Your task to perform on an android device: open a bookmark in the chrome app Image 0: 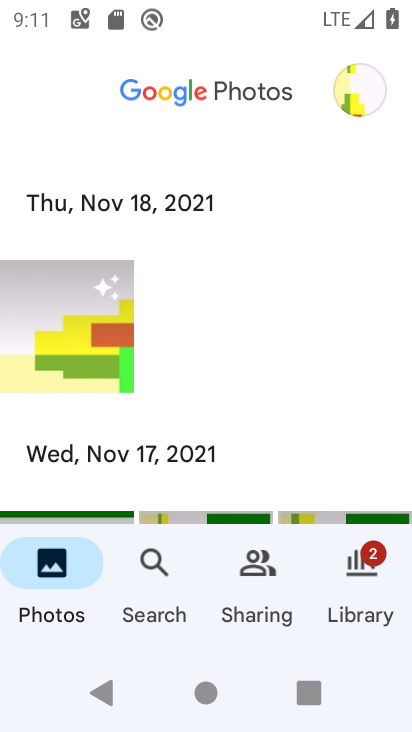
Step 0: press home button
Your task to perform on an android device: open a bookmark in the chrome app Image 1: 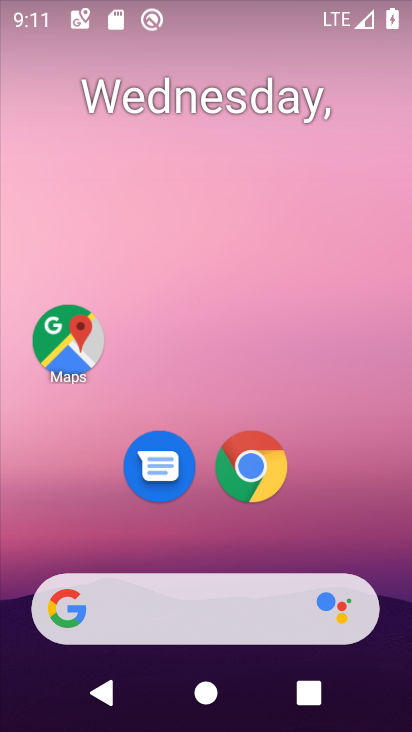
Step 1: click (256, 470)
Your task to perform on an android device: open a bookmark in the chrome app Image 2: 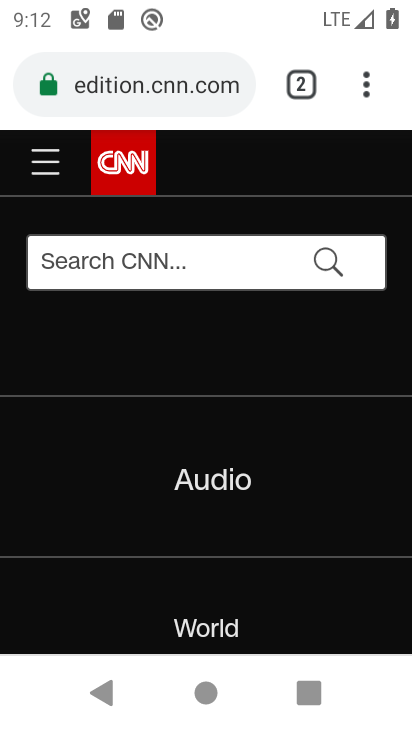
Step 2: click (367, 89)
Your task to perform on an android device: open a bookmark in the chrome app Image 3: 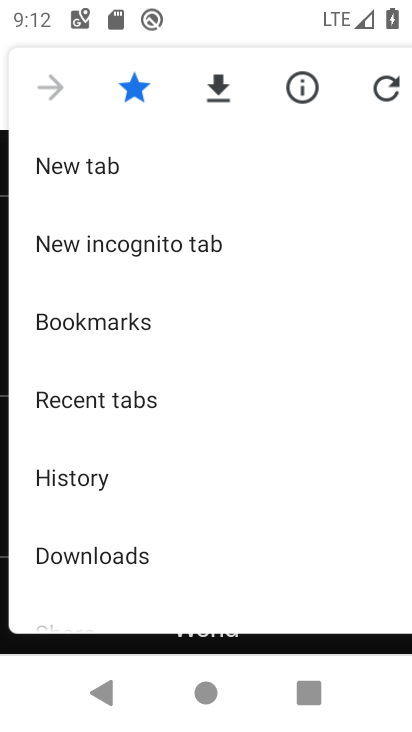
Step 3: click (122, 328)
Your task to perform on an android device: open a bookmark in the chrome app Image 4: 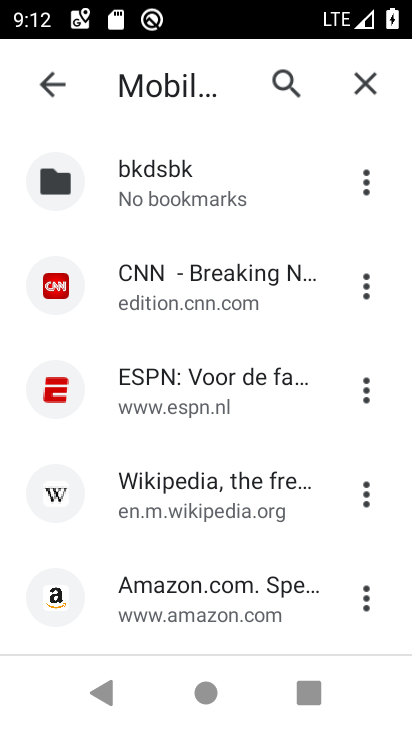
Step 4: click (185, 282)
Your task to perform on an android device: open a bookmark in the chrome app Image 5: 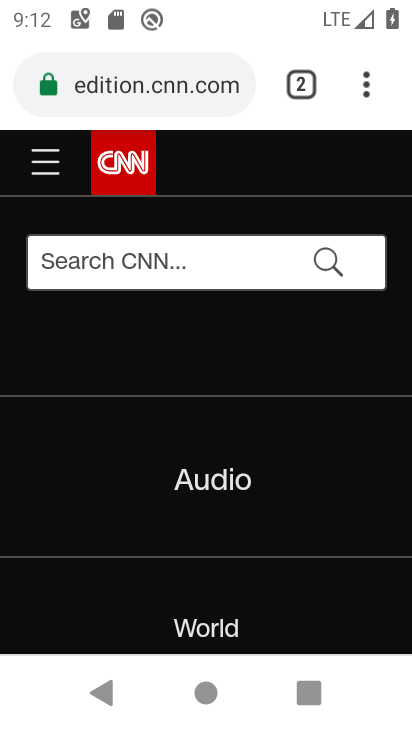
Step 5: task complete